Your task to perform on an android device: Turn off the flashlight Image 0: 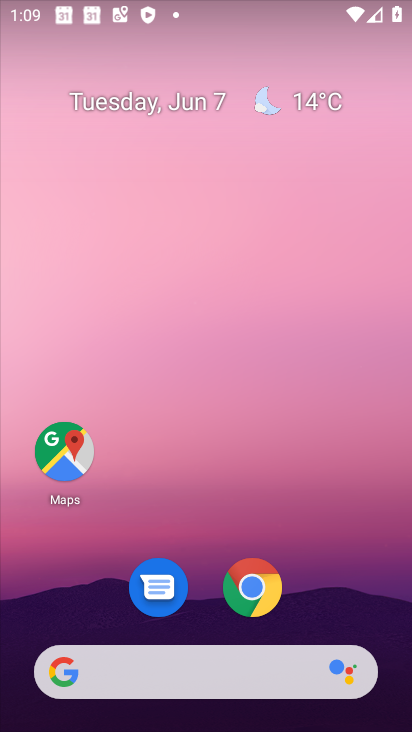
Step 0: drag from (226, 621) to (239, 226)
Your task to perform on an android device: Turn off the flashlight Image 1: 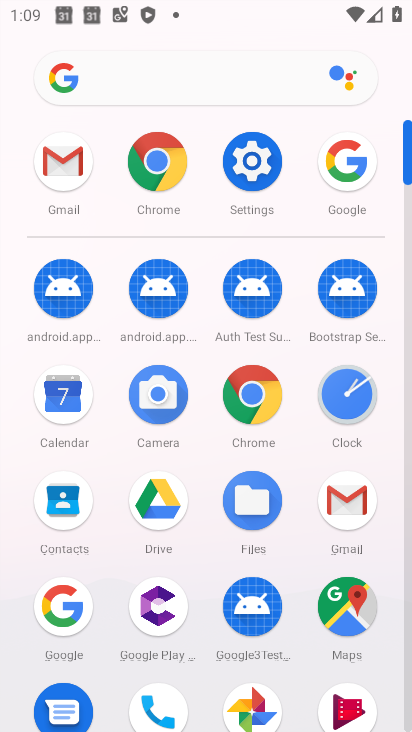
Step 1: task complete